Your task to perform on an android device: Go to accessibility settings Image 0: 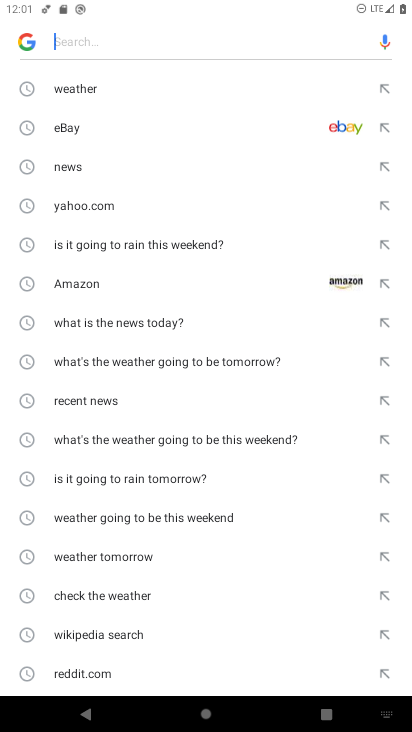
Step 0: press home button
Your task to perform on an android device: Go to accessibility settings Image 1: 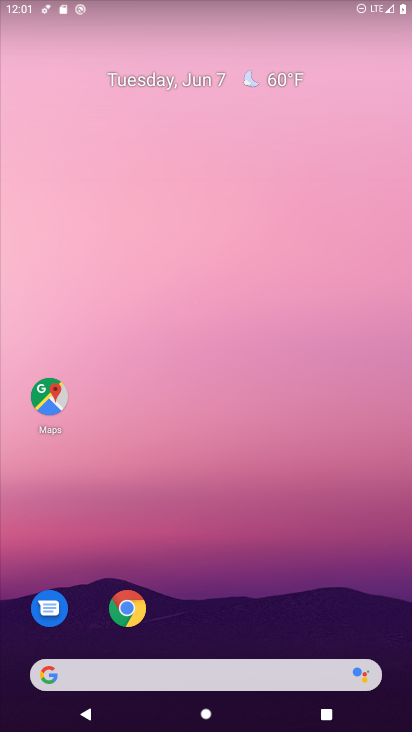
Step 1: drag from (262, 595) to (256, 26)
Your task to perform on an android device: Go to accessibility settings Image 2: 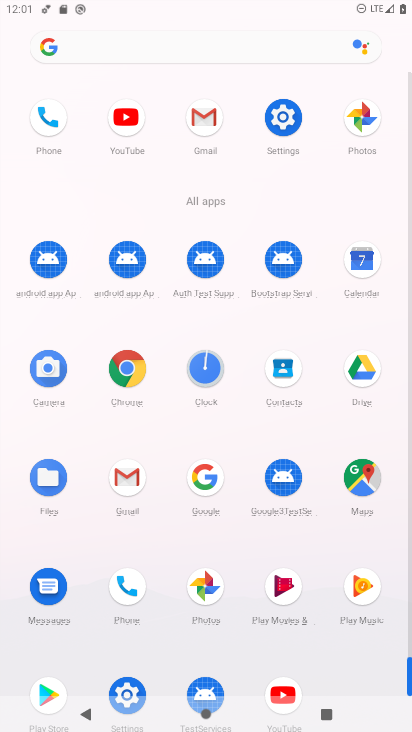
Step 2: click (277, 115)
Your task to perform on an android device: Go to accessibility settings Image 3: 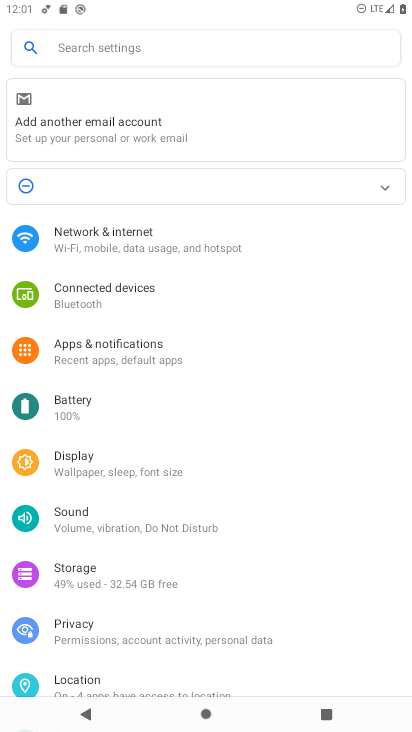
Step 3: drag from (140, 594) to (220, 77)
Your task to perform on an android device: Go to accessibility settings Image 4: 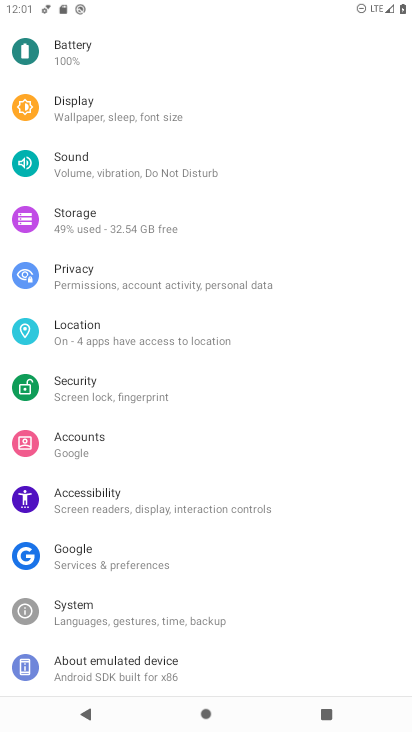
Step 4: click (151, 490)
Your task to perform on an android device: Go to accessibility settings Image 5: 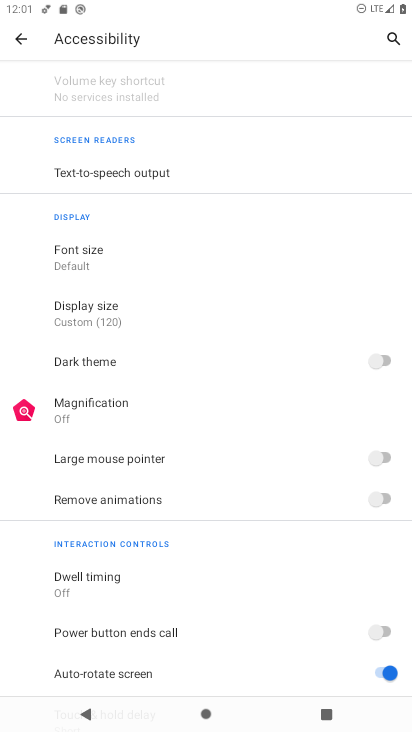
Step 5: task complete